Your task to perform on an android device: change alarm snooze length Image 0: 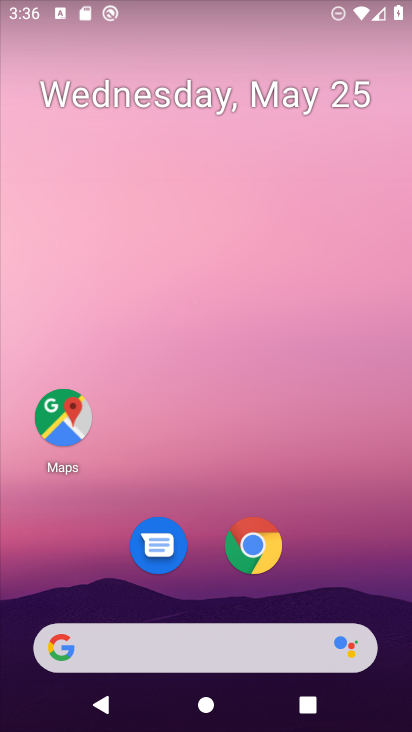
Step 0: drag from (359, 581) to (319, 101)
Your task to perform on an android device: change alarm snooze length Image 1: 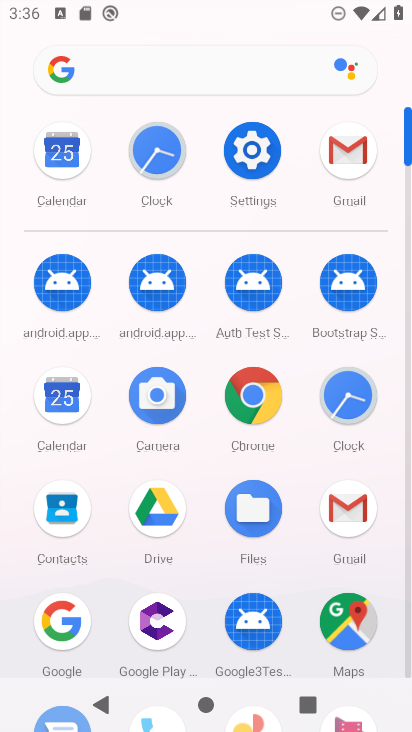
Step 1: click (174, 145)
Your task to perform on an android device: change alarm snooze length Image 2: 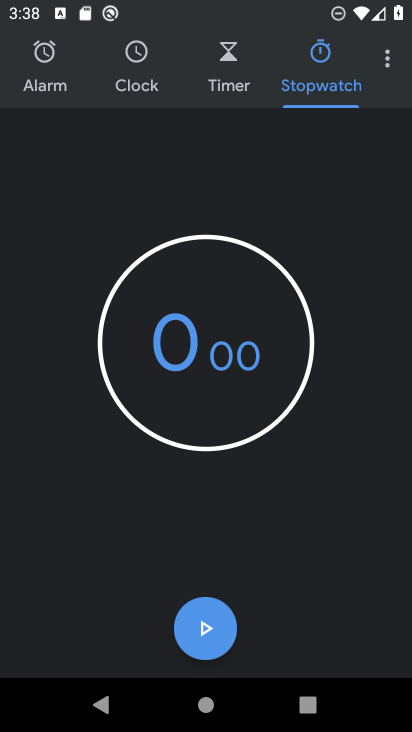
Step 2: click (379, 54)
Your task to perform on an android device: change alarm snooze length Image 3: 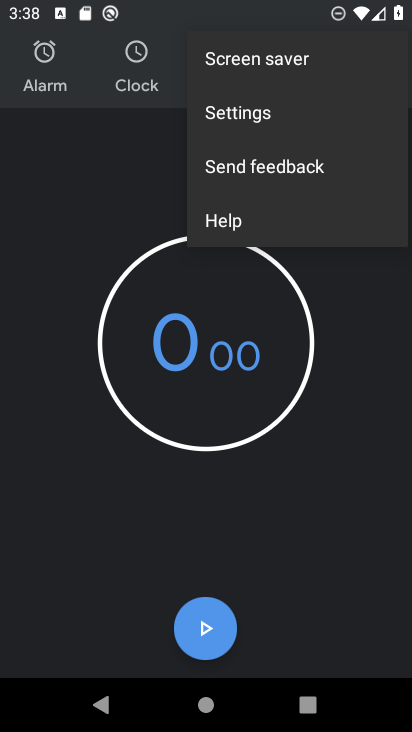
Step 3: click (307, 100)
Your task to perform on an android device: change alarm snooze length Image 4: 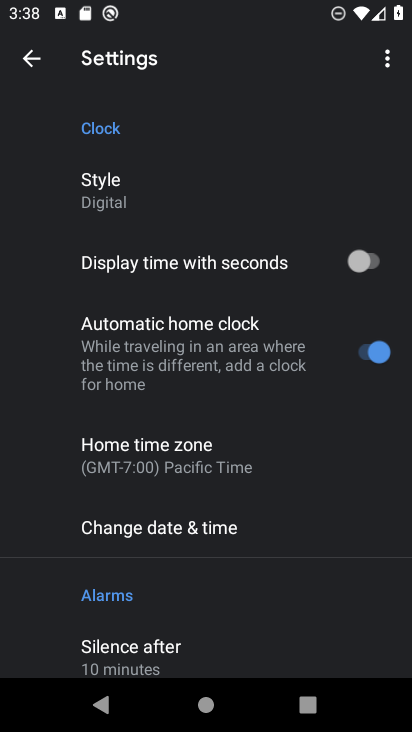
Step 4: task complete